Your task to perform on an android device: Search for Mexican restaurants on Maps Image 0: 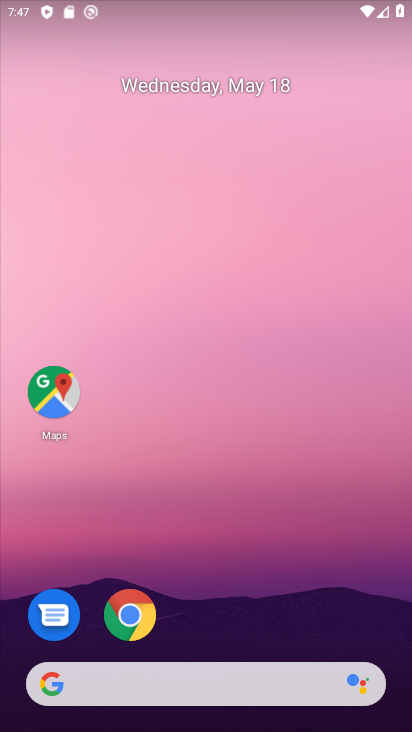
Step 0: click (48, 402)
Your task to perform on an android device: Search for Mexican restaurants on Maps Image 1: 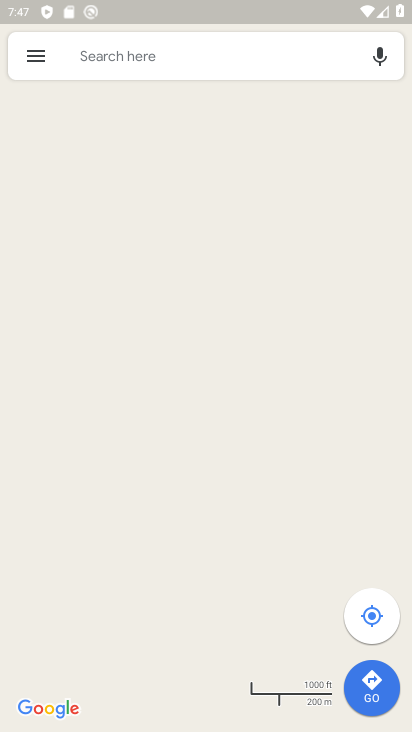
Step 1: click (237, 59)
Your task to perform on an android device: Search for Mexican restaurants on Maps Image 2: 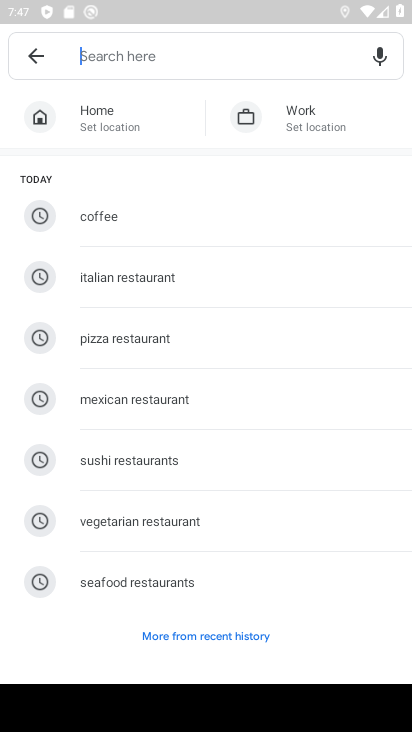
Step 2: type "m"
Your task to perform on an android device: Search for Mexican restaurants on Maps Image 3: 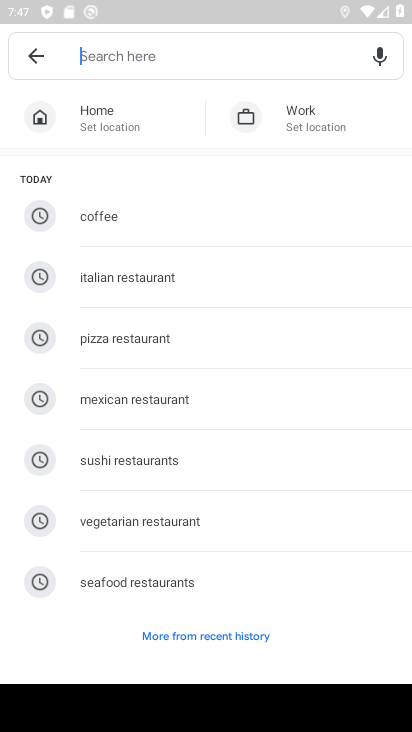
Step 3: click (171, 410)
Your task to perform on an android device: Search for Mexican restaurants on Maps Image 4: 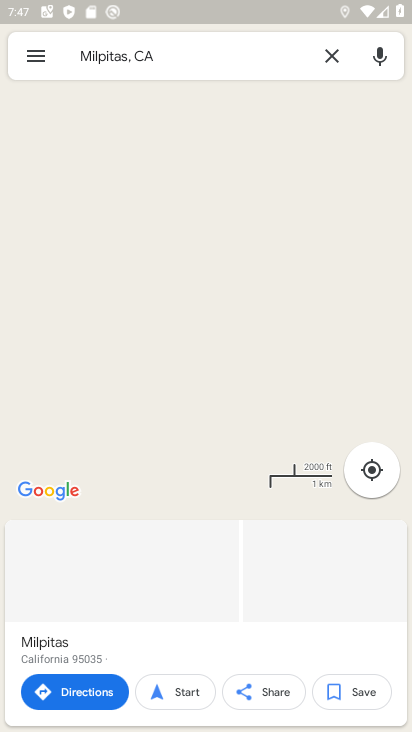
Step 4: click (338, 51)
Your task to perform on an android device: Search for Mexican restaurants on Maps Image 5: 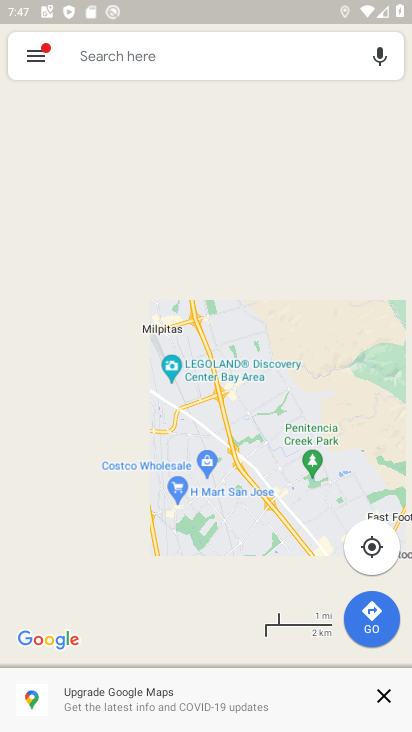
Step 5: click (177, 70)
Your task to perform on an android device: Search for Mexican restaurants on Maps Image 6: 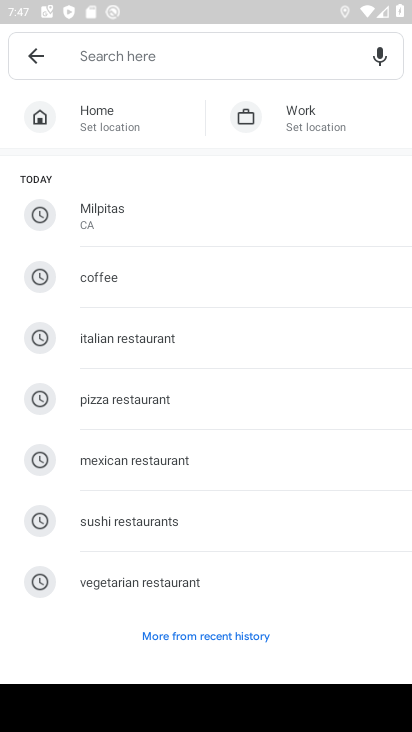
Step 6: click (108, 463)
Your task to perform on an android device: Search for Mexican restaurants on Maps Image 7: 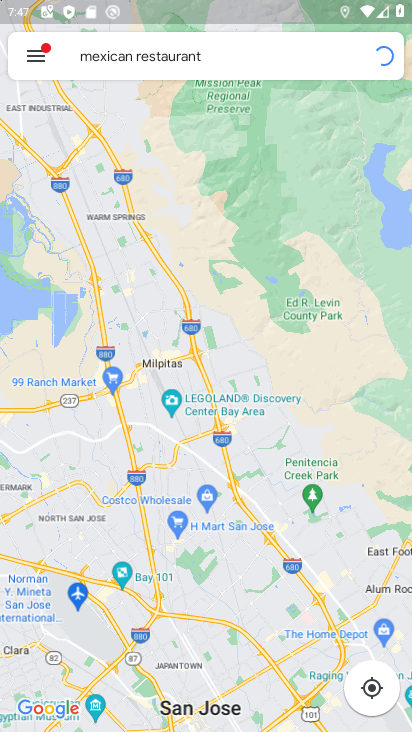
Step 7: task complete